Your task to perform on an android device: turn pop-ups off in chrome Image 0: 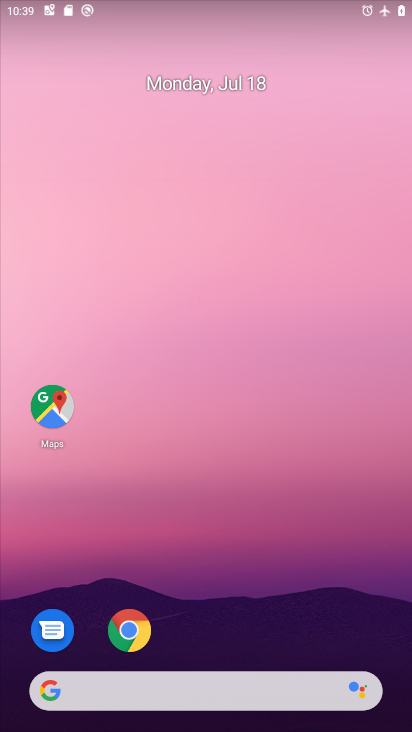
Step 0: click (121, 636)
Your task to perform on an android device: turn pop-ups off in chrome Image 1: 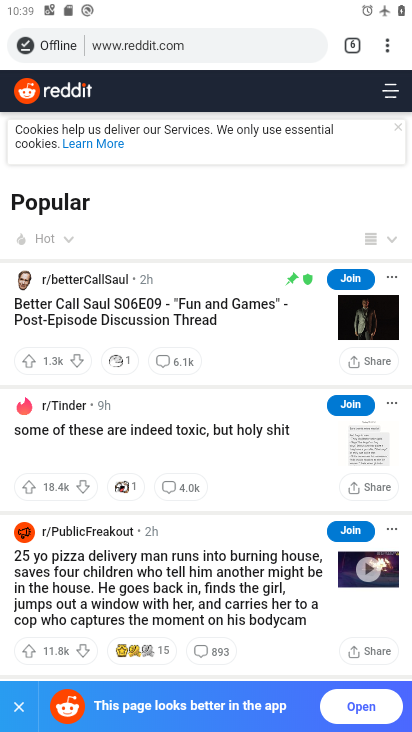
Step 1: click (385, 46)
Your task to perform on an android device: turn pop-ups off in chrome Image 2: 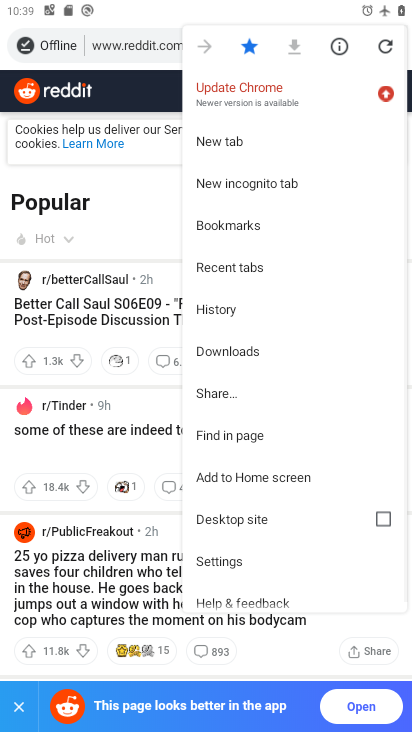
Step 2: click (255, 562)
Your task to perform on an android device: turn pop-ups off in chrome Image 3: 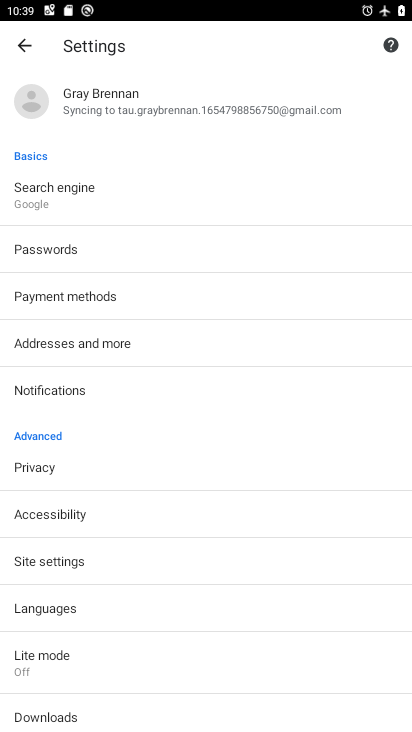
Step 3: click (66, 563)
Your task to perform on an android device: turn pop-ups off in chrome Image 4: 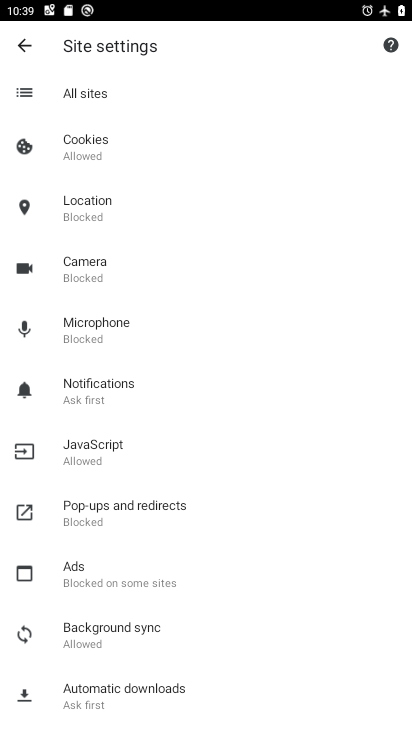
Step 4: click (182, 512)
Your task to perform on an android device: turn pop-ups off in chrome Image 5: 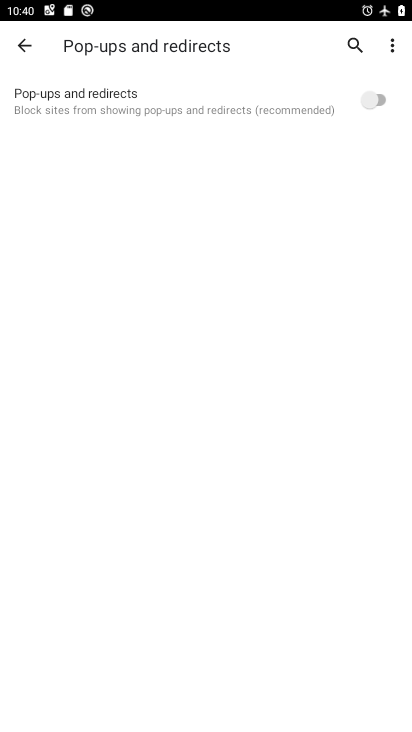
Step 5: task complete